Your task to perform on an android device: turn on airplane mode Image 0: 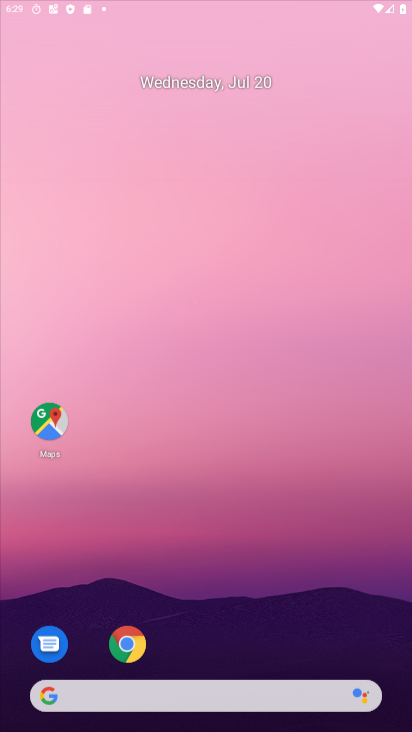
Step 0: press home button
Your task to perform on an android device: turn on airplane mode Image 1: 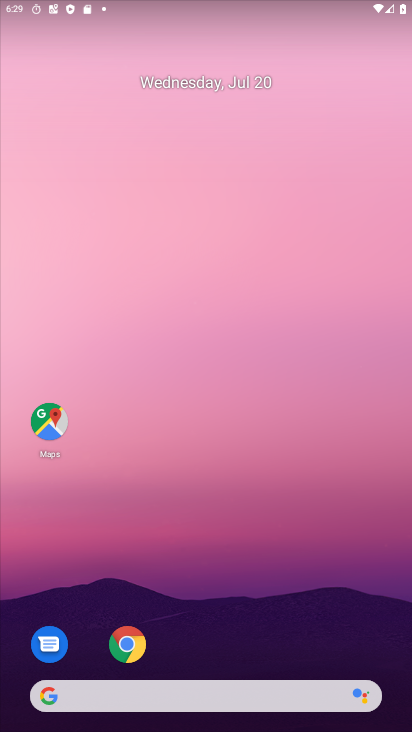
Step 1: drag from (272, 6) to (158, 730)
Your task to perform on an android device: turn on airplane mode Image 2: 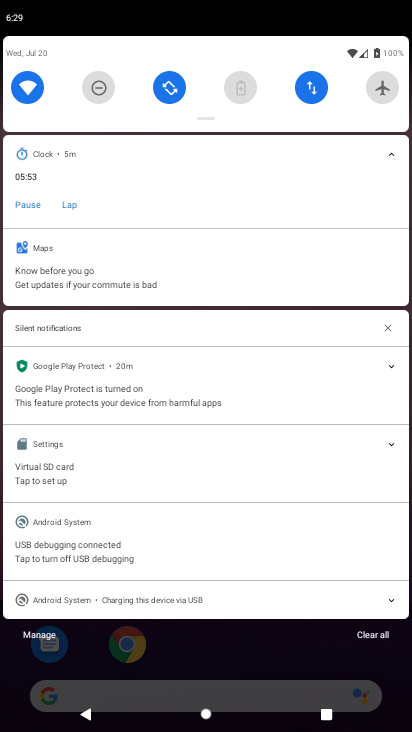
Step 2: click (390, 82)
Your task to perform on an android device: turn on airplane mode Image 3: 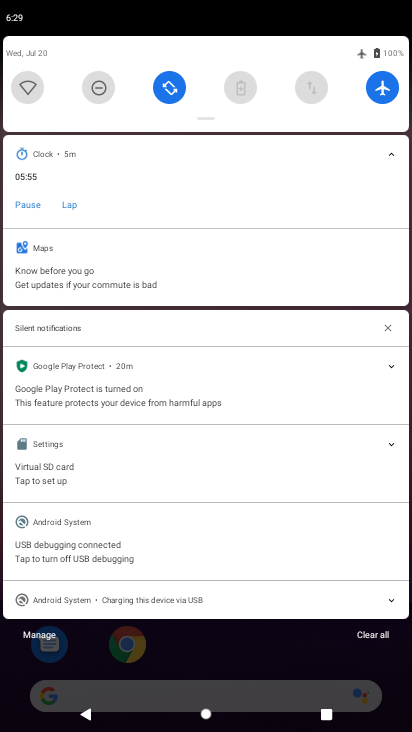
Step 3: task complete